Your task to perform on an android device: Open display settings Image 0: 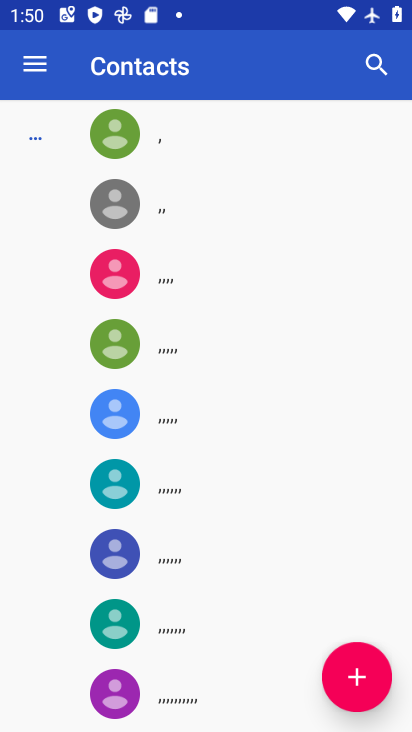
Step 0: press home button
Your task to perform on an android device: Open display settings Image 1: 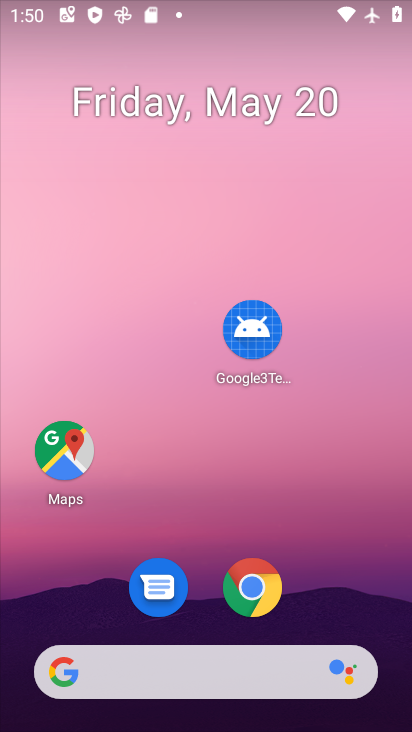
Step 1: drag from (330, 576) to (306, 260)
Your task to perform on an android device: Open display settings Image 2: 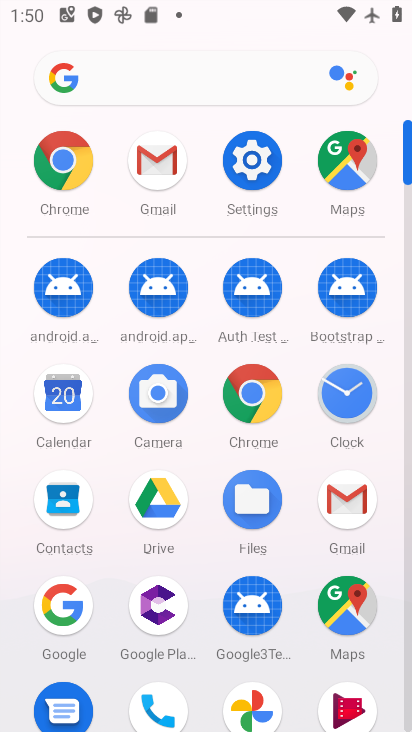
Step 2: click (255, 150)
Your task to perform on an android device: Open display settings Image 3: 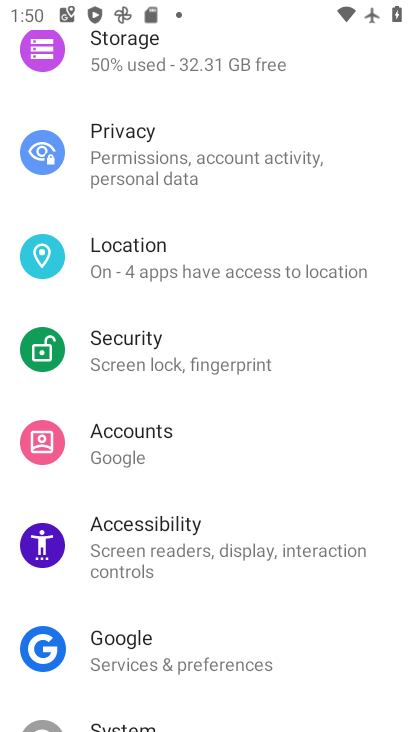
Step 3: drag from (223, 223) to (202, 699)
Your task to perform on an android device: Open display settings Image 4: 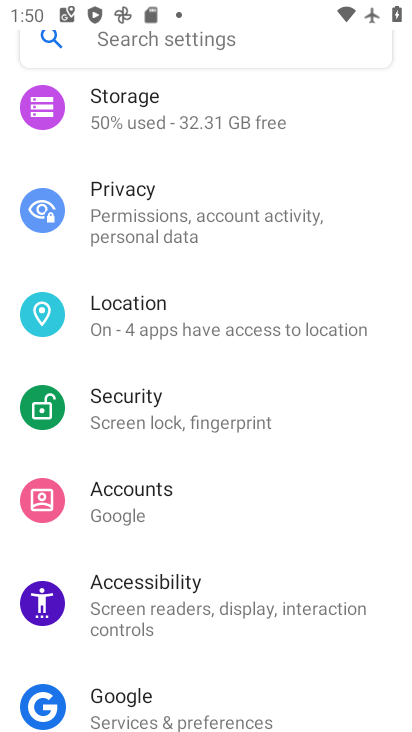
Step 4: drag from (192, 167) to (190, 655)
Your task to perform on an android device: Open display settings Image 5: 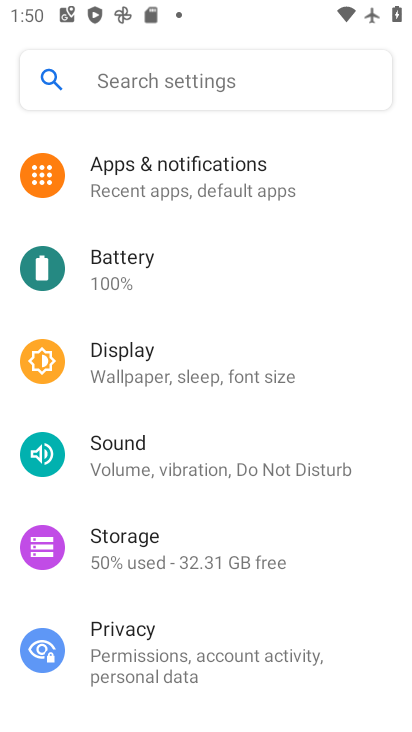
Step 5: drag from (241, 242) to (236, 730)
Your task to perform on an android device: Open display settings Image 6: 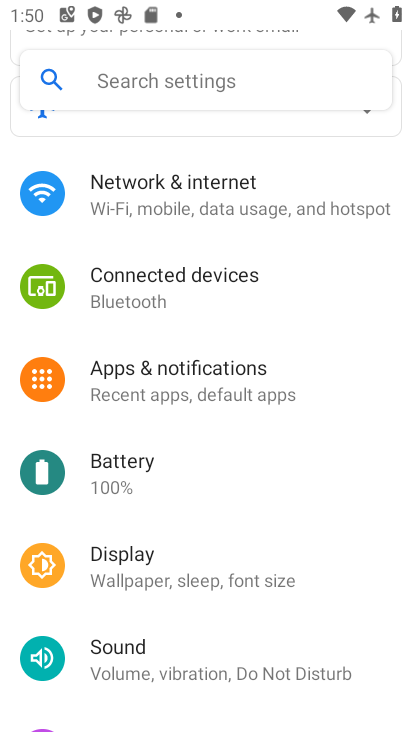
Step 6: click (120, 556)
Your task to perform on an android device: Open display settings Image 7: 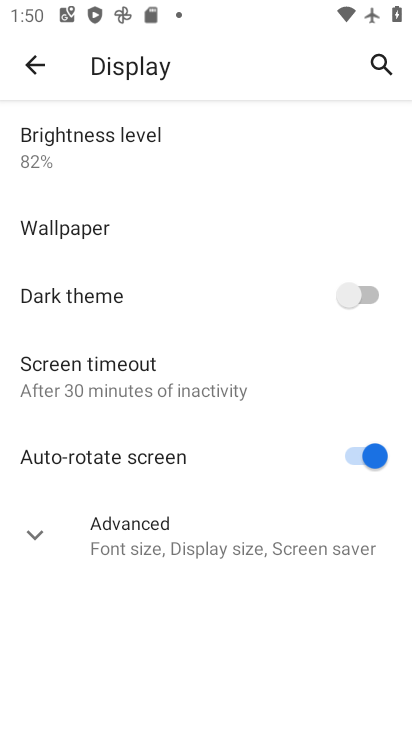
Step 7: task complete